Your task to perform on an android device: stop showing notifications on the lock screen Image 0: 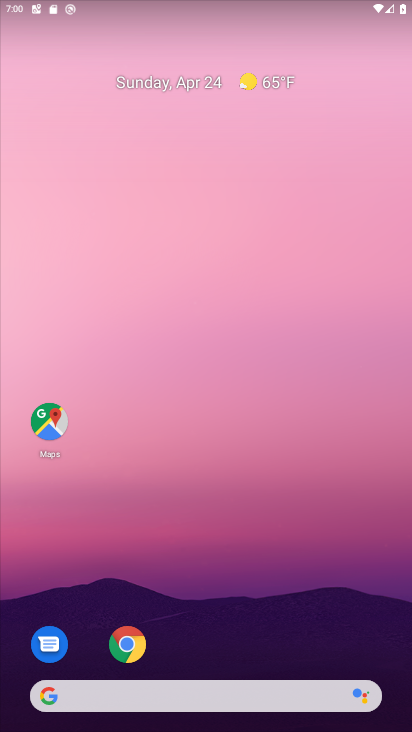
Step 0: click (192, 99)
Your task to perform on an android device: stop showing notifications on the lock screen Image 1: 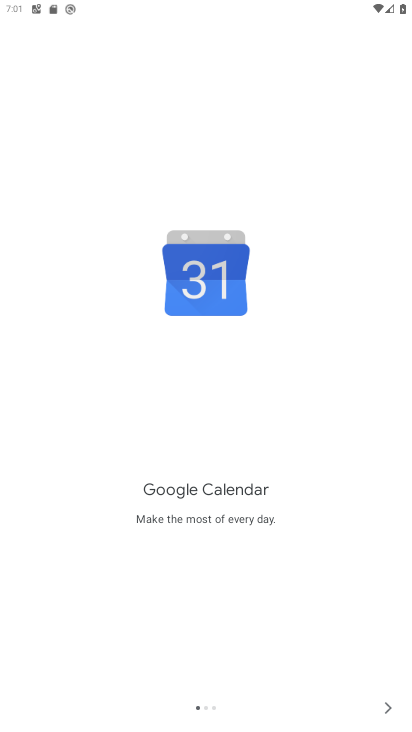
Step 1: press home button
Your task to perform on an android device: stop showing notifications on the lock screen Image 2: 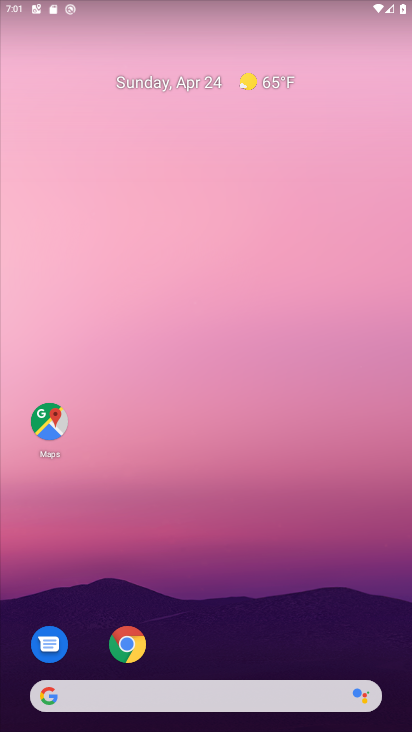
Step 2: drag from (202, 644) to (199, 103)
Your task to perform on an android device: stop showing notifications on the lock screen Image 3: 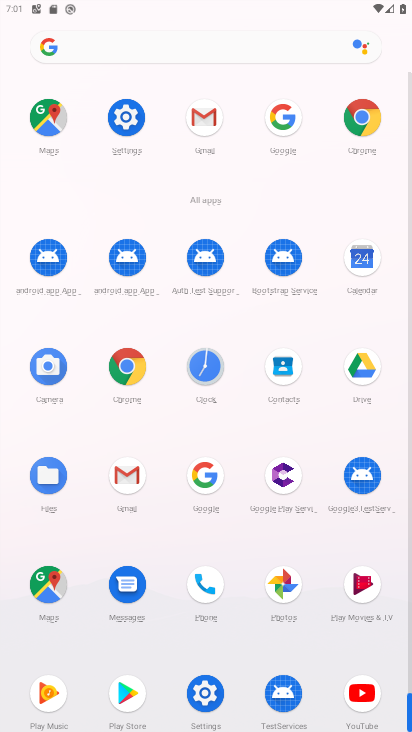
Step 3: click (120, 114)
Your task to perform on an android device: stop showing notifications on the lock screen Image 4: 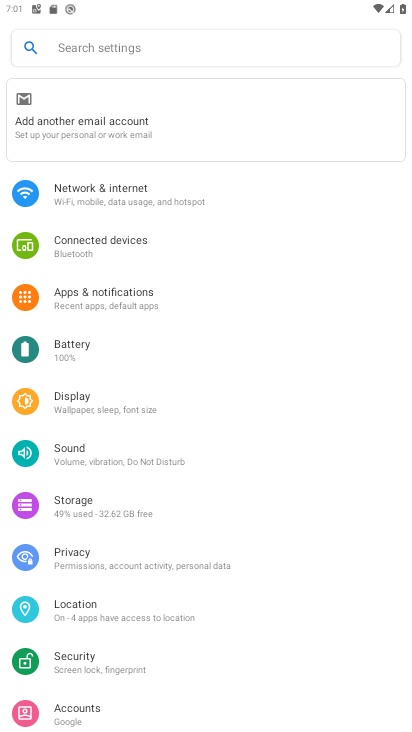
Step 4: click (159, 294)
Your task to perform on an android device: stop showing notifications on the lock screen Image 5: 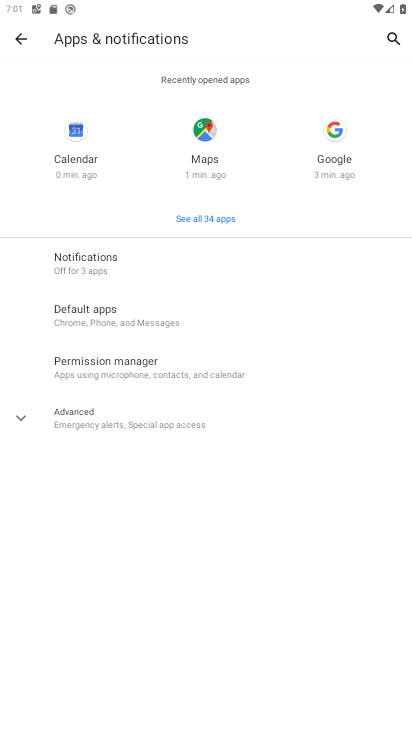
Step 5: click (116, 262)
Your task to perform on an android device: stop showing notifications on the lock screen Image 6: 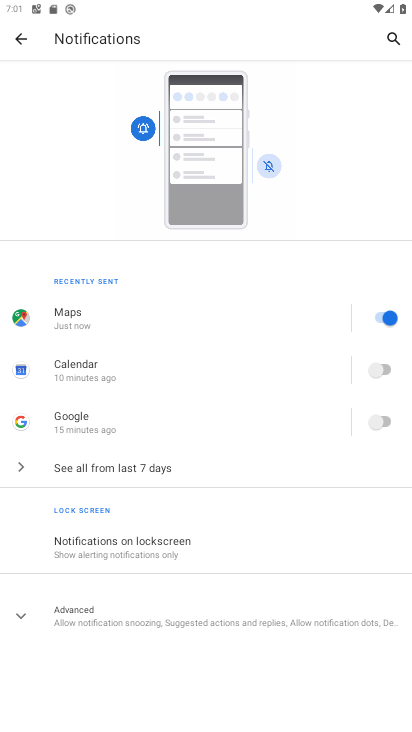
Step 6: click (193, 545)
Your task to perform on an android device: stop showing notifications on the lock screen Image 7: 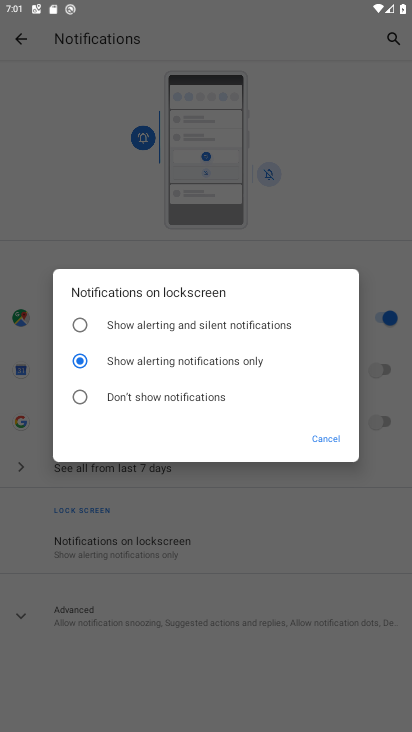
Step 7: click (78, 390)
Your task to perform on an android device: stop showing notifications on the lock screen Image 8: 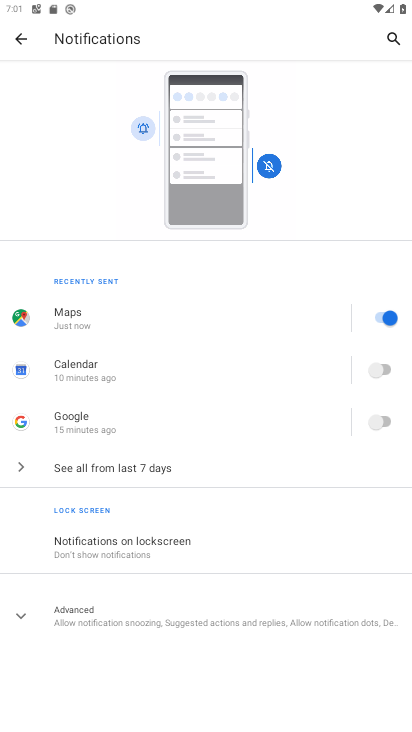
Step 8: task complete